Your task to perform on an android device: Go to privacy settings Image 0: 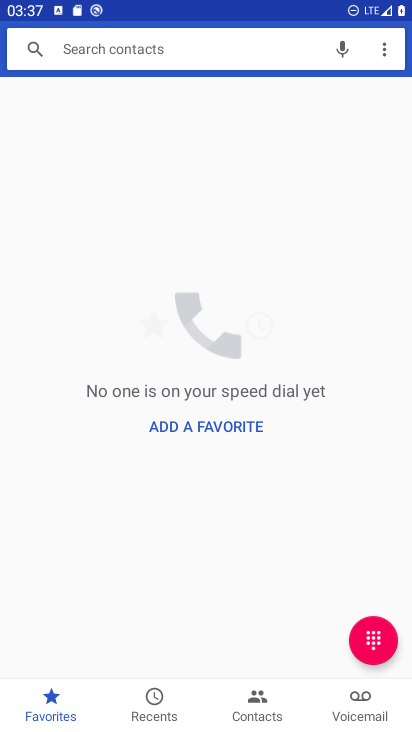
Step 0: press home button
Your task to perform on an android device: Go to privacy settings Image 1: 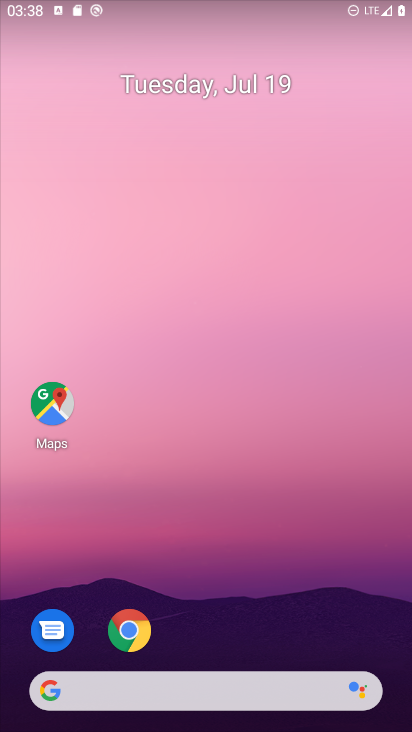
Step 1: drag from (312, 620) to (231, 79)
Your task to perform on an android device: Go to privacy settings Image 2: 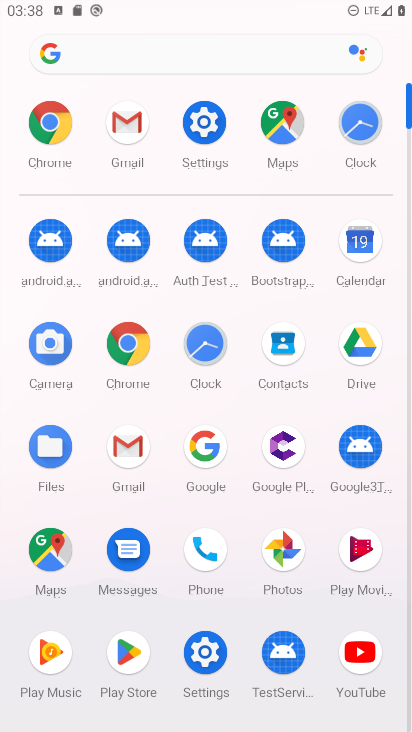
Step 2: click (202, 652)
Your task to perform on an android device: Go to privacy settings Image 3: 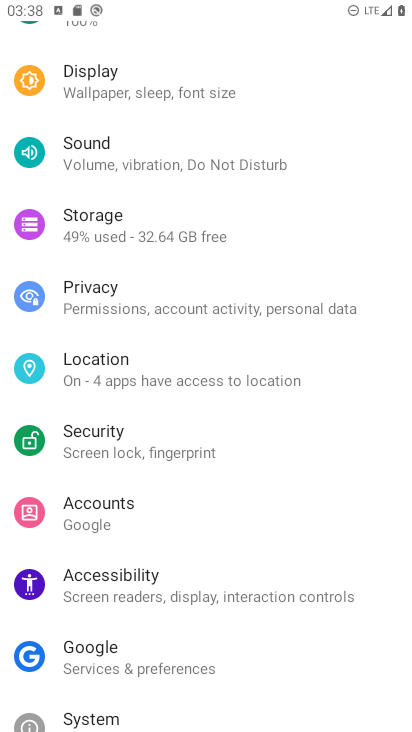
Step 3: click (79, 287)
Your task to perform on an android device: Go to privacy settings Image 4: 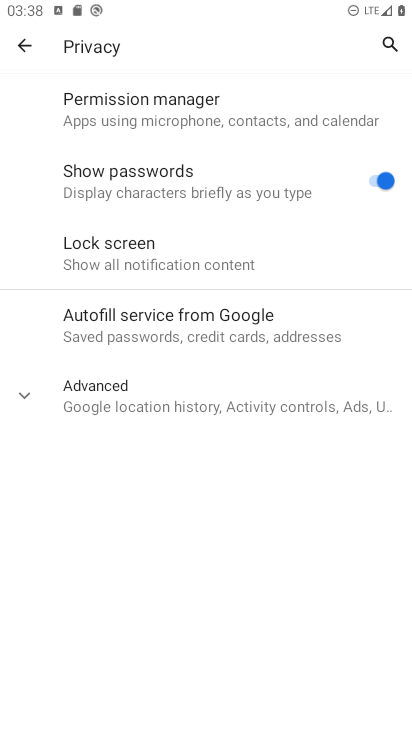
Step 4: click (23, 401)
Your task to perform on an android device: Go to privacy settings Image 5: 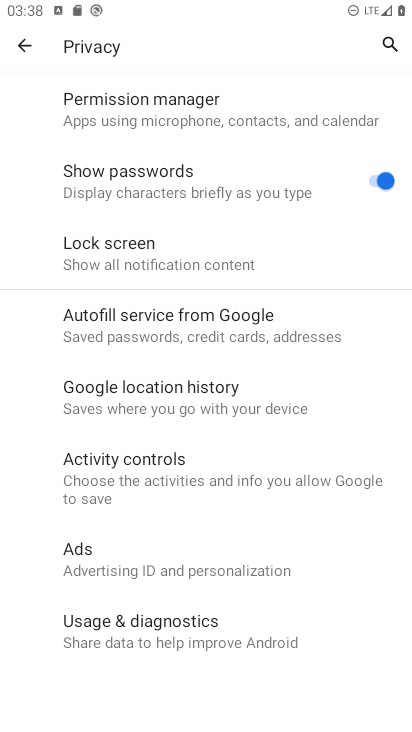
Step 5: task complete